Your task to perform on an android device: move an email to a new category in the gmail app Image 0: 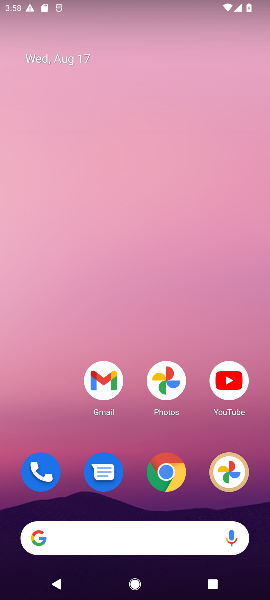
Step 0: drag from (122, 430) to (239, 8)
Your task to perform on an android device: move an email to a new category in the gmail app Image 1: 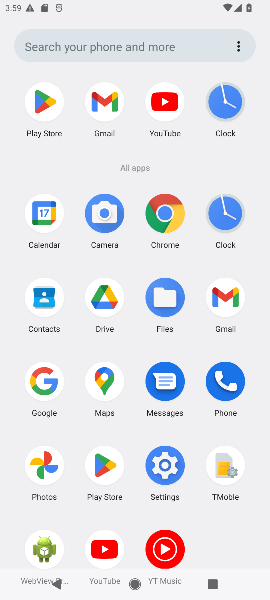
Step 1: click (220, 297)
Your task to perform on an android device: move an email to a new category in the gmail app Image 2: 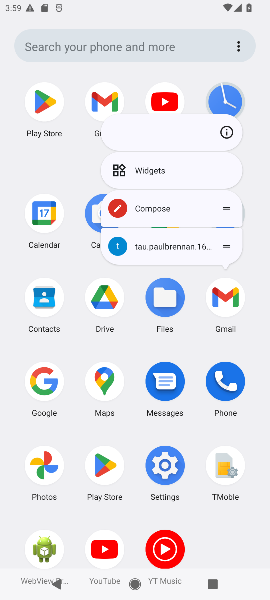
Step 2: click (214, 281)
Your task to perform on an android device: move an email to a new category in the gmail app Image 3: 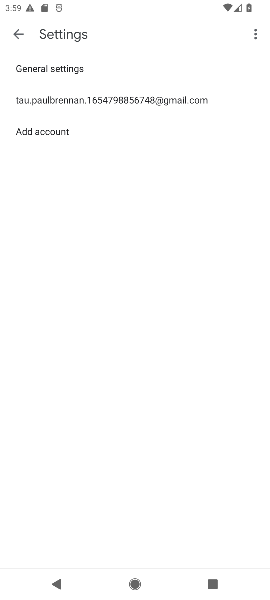
Step 3: click (18, 33)
Your task to perform on an android device: move an email to a new category in the gmail app Image 4: 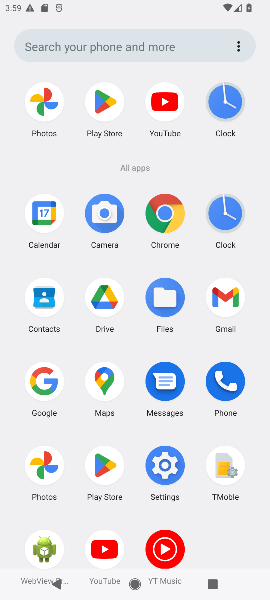
Step 4: click (221, 303)
Your task to perform on an android device: move an email to a new category in the gmail app Image 5: 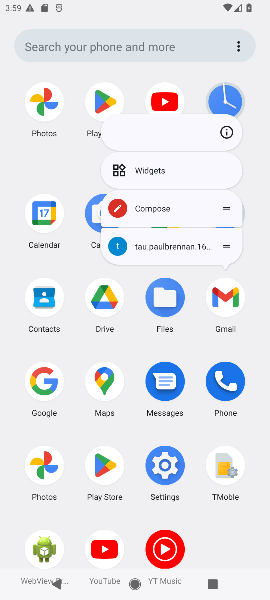
Step 5: click (234, 314)
Your task to perform on an android device: move an email to a new category in the gmail app Image 6: 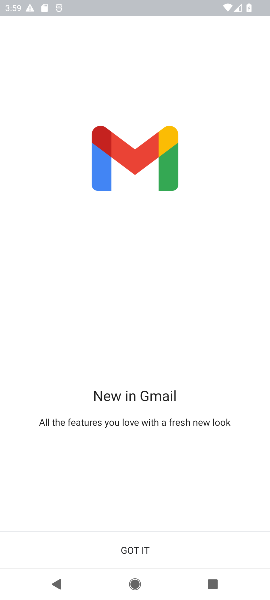
Step 6: click (129, 555)
Your task to perform on an android device: move an email to a new category in the gmail app Image 7: 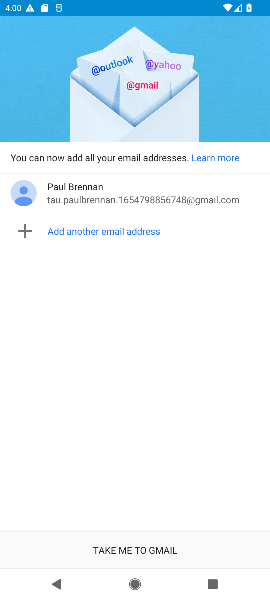
Step 7: click (95, 539)
Your task to perform on an android device: move an email to a new category in the gmail app Image 8: 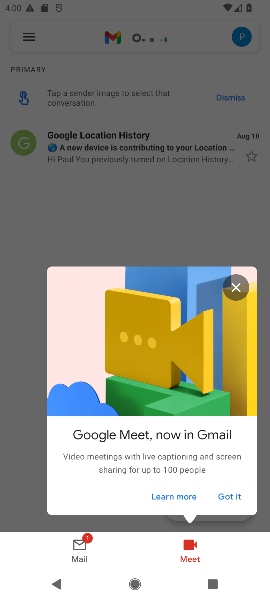
Step 8: click (235, 280)
Your task to perform on an android device: move an email to a new category in the gmail app Image 9: 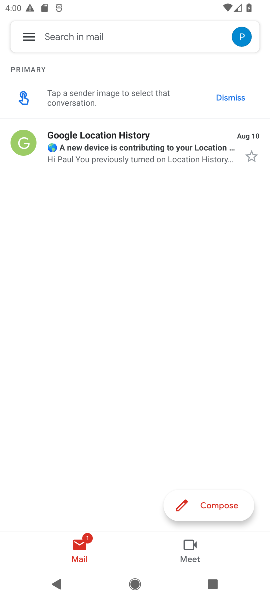
Step 9: click (15, 140)
Your task to perform on an android device: move an email to a new category in the gmail app Image 10: 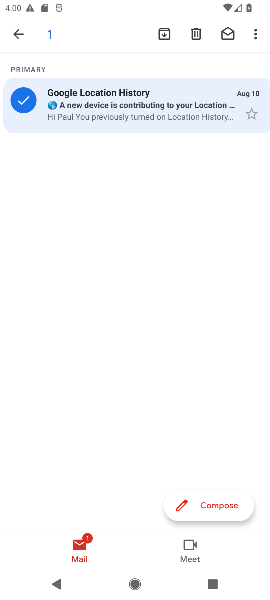
Step 10: click (250, 30)
Your task to perform on an android device: move an email to a new category in the gmail app Image 11: 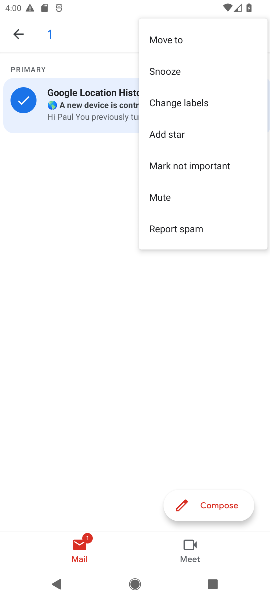
Step 11: click (188, 94)
Your task to perform on an android device: move an email to a new category in the gmail app Image 12: 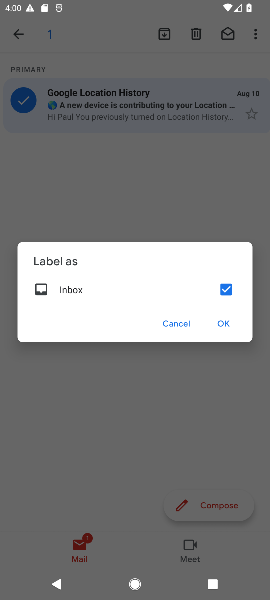
Step 12: click (225, 284)
Your task to perform on an android device: move an email to a new category in the gmail app Image 13: 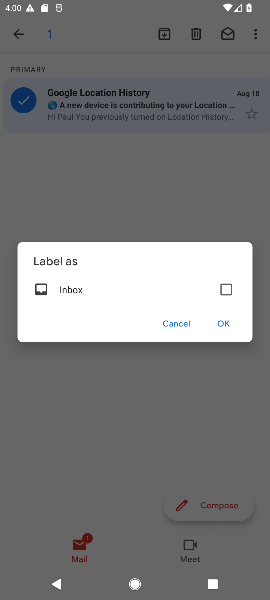
Step 13: click (219, 320)
Your task to perform on an android device: move an email to a new category in the gmail app Image 14: 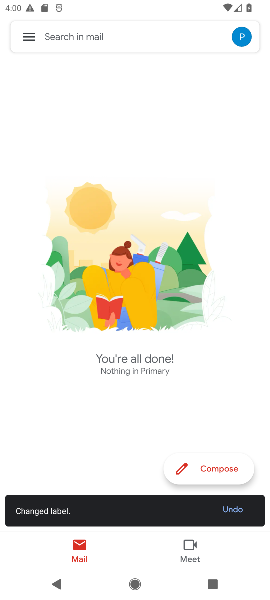
Step 14: task complete